Your task to perform on an android device: Open settings Image 0: 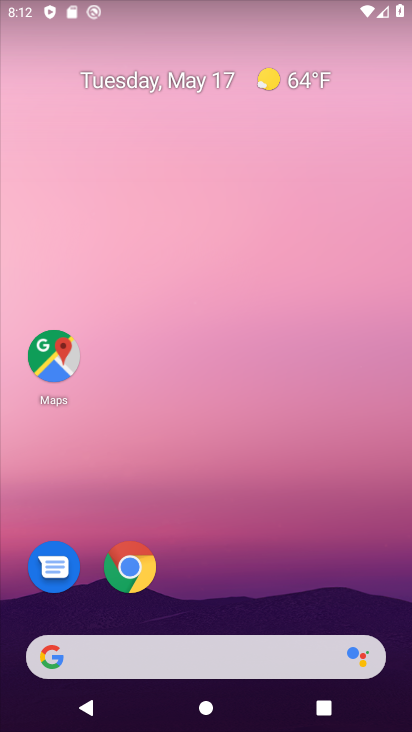
Step 0: drag from (377, 619) to (260, 54)
Your task to perform on an android device: Open settings Image 1: 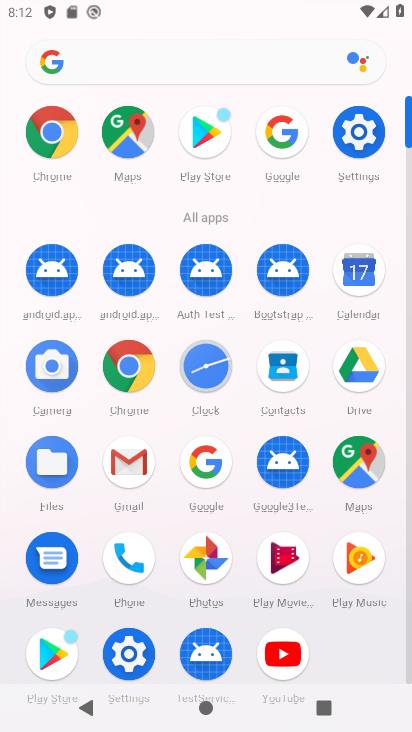
Step 1: click (141, 664)
Your task to perform on an android device: Open settings Image 2: 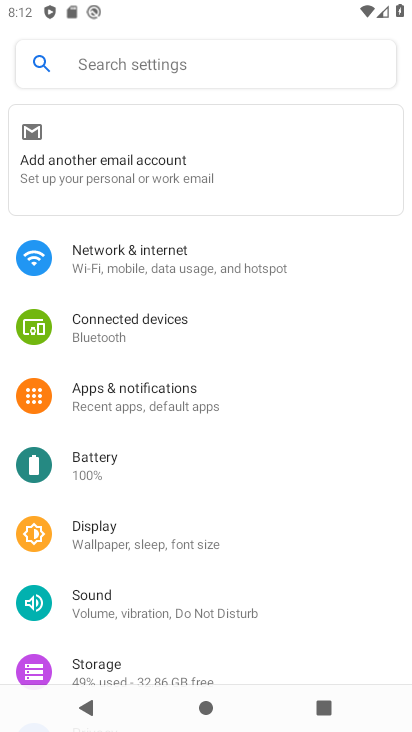
Step 2: task complete